Your task to perform on an android device: Open Google Chrome Image 0: 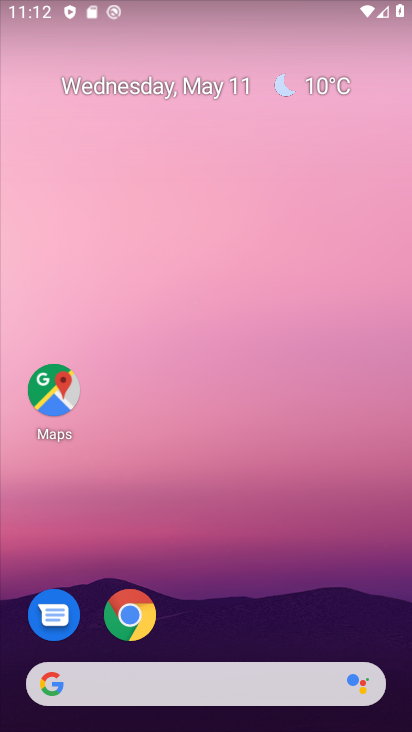
Step 0: click (140, 637)
Your task to perform on an android device: Open Google Chrome Image 1: 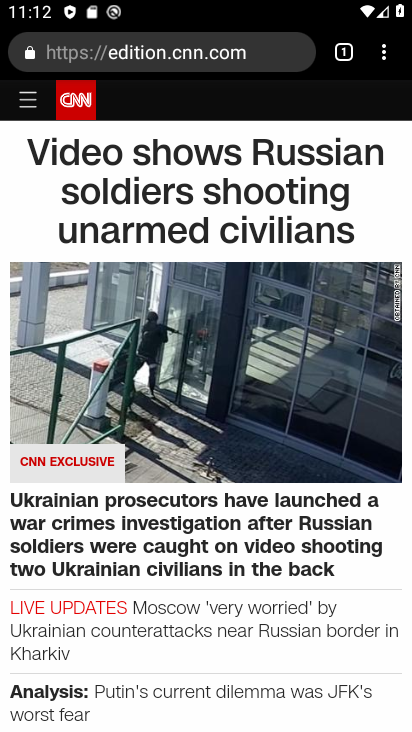
Step 1: task complete